Your task to perform on an android device: Empty the shopping cart on newegg. Search for "razer blade" on newegg, select the first entry, add it to the cart, then select checkout. Image 0: 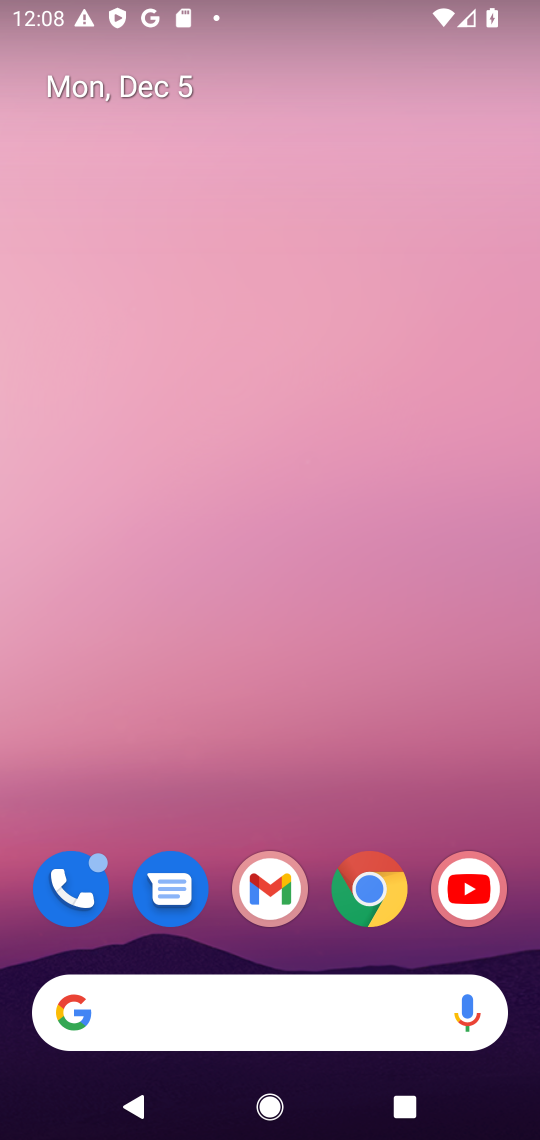
Step 0: click (381, 889)
Your task to perform on an android device: Empty the shopping cart on newegg. Search for "razer blade" on newegg, select the first entry, add it to the cart, then select checkout. Image 1: 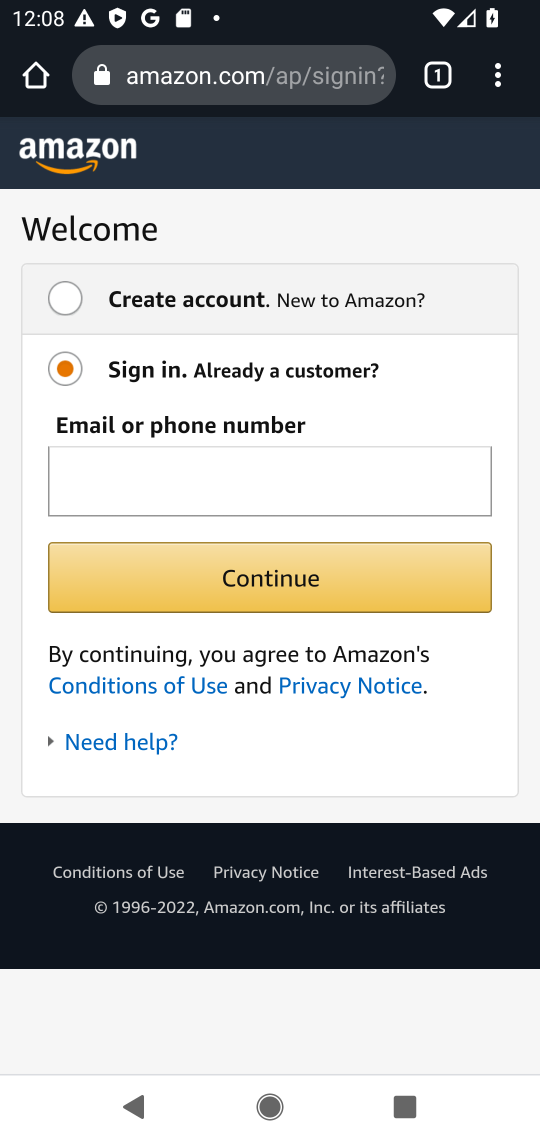
Step 1: press home button
Your task to perform on an android device: Empty the shopping cart on newegg. Search for "razer blade" on newegg, select the first entry, add it to the cart, then select checkout. Image 2: 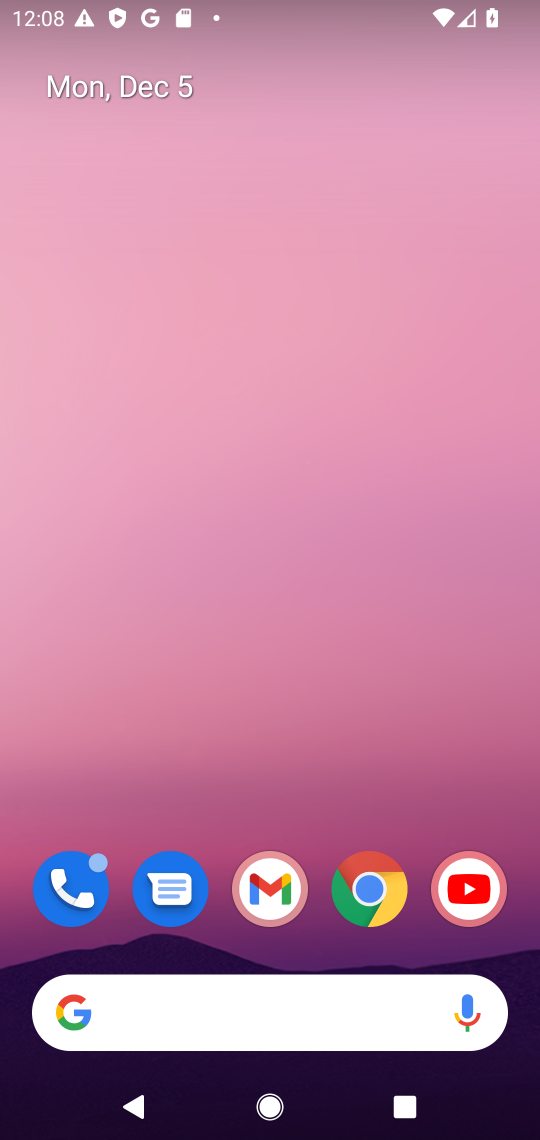
Step 2: click (371, 890)
Your task to perform on an android device: Empty the shopping cart on newegg. Search for "razer blade" on newegg, select the first entry, add it to the cart, then select checkout. Image 3: 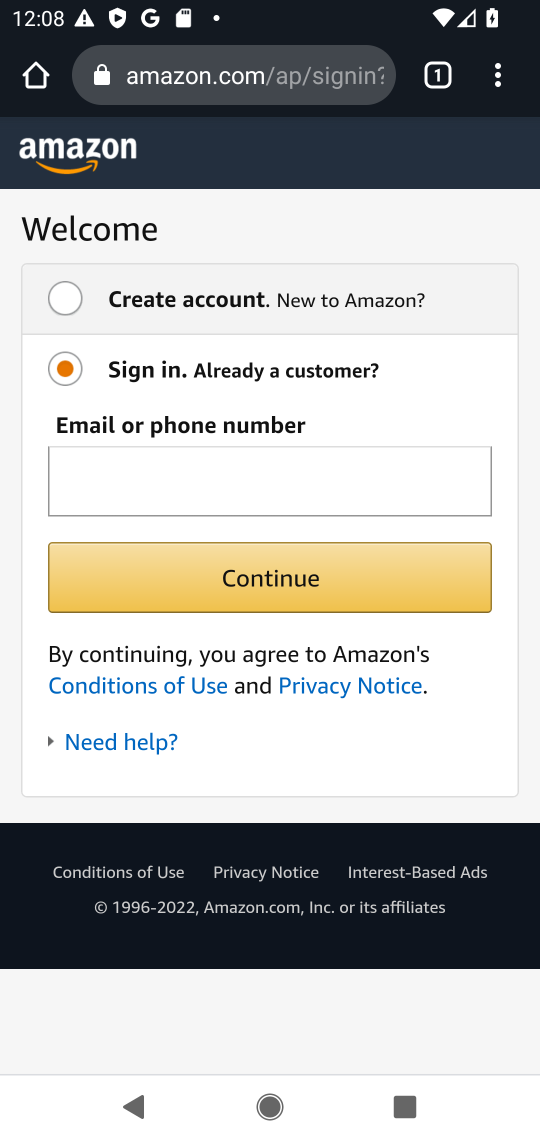
Step 3: click (251, 68)
Your task to perform on an android device: Empty the shopping cart on newegg. Search for "razer blade" on newegg, select the first entry, add it to the cart, then select checkout. Image 4: 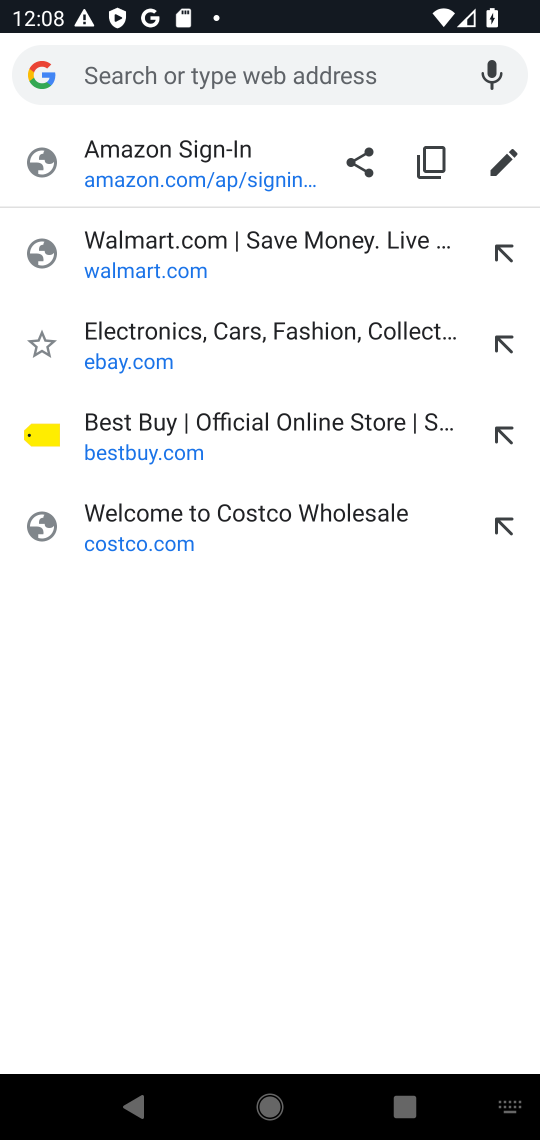
Step 4: type "newegg"
Your task to perform on an android device: Empty the shopping cart on newegg. Search for "razer blade" on newegg, select the first entry, add it to the cart, then select checkout. Image 5: 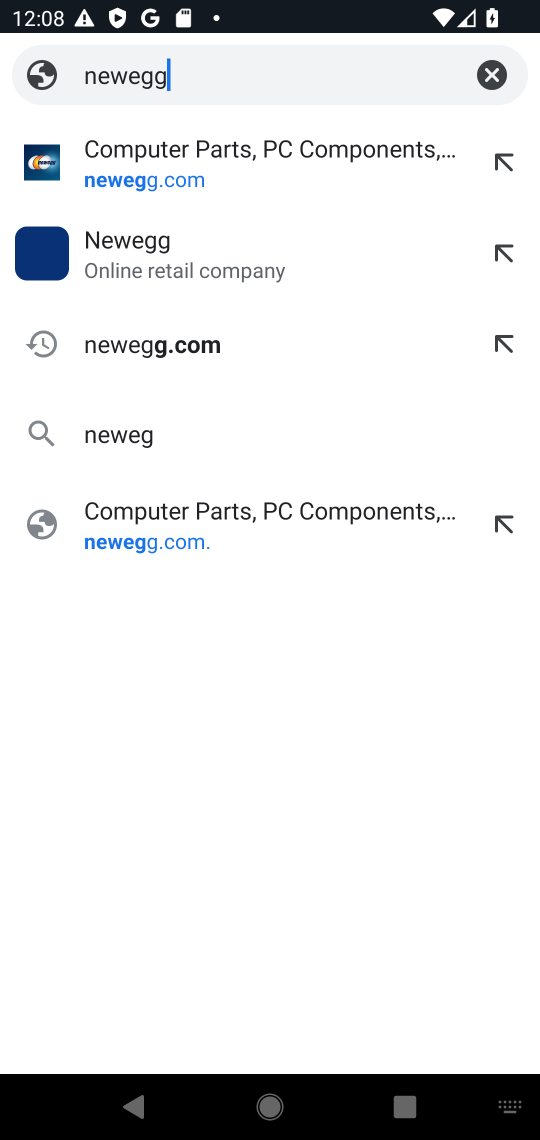
Step 5: press enter
Your task to perform on an android device: Empty the shopping cart on newegg. Search for "razer blade" on newegg, select the first entry, add it to the cart, then select checkout. Image 6: 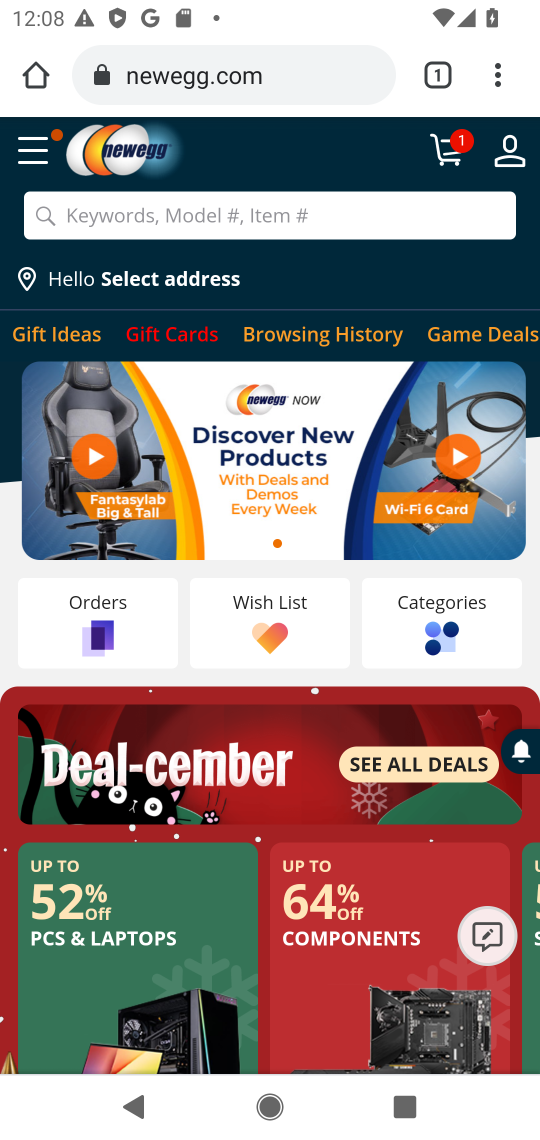
Step 6: click (247, 210)
Your task to perform on an android device: Empty the shopping cart on newegg. Search for "razer blade" on newegg, select the first entry, add it to the cart, then select checkout. Image 7: 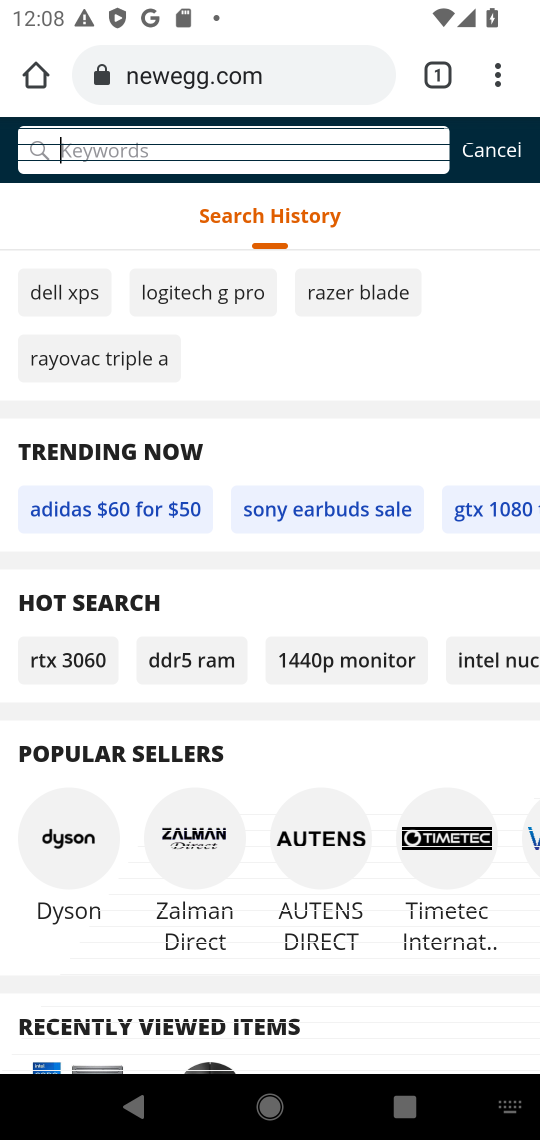
Step 7: click (486, 149)
Your task to perform on an android device: Empty the shopping cart on newegg. Search for "razer blade" on newegg, select the first entry, add it to the cart, then select checkout. Image 8: 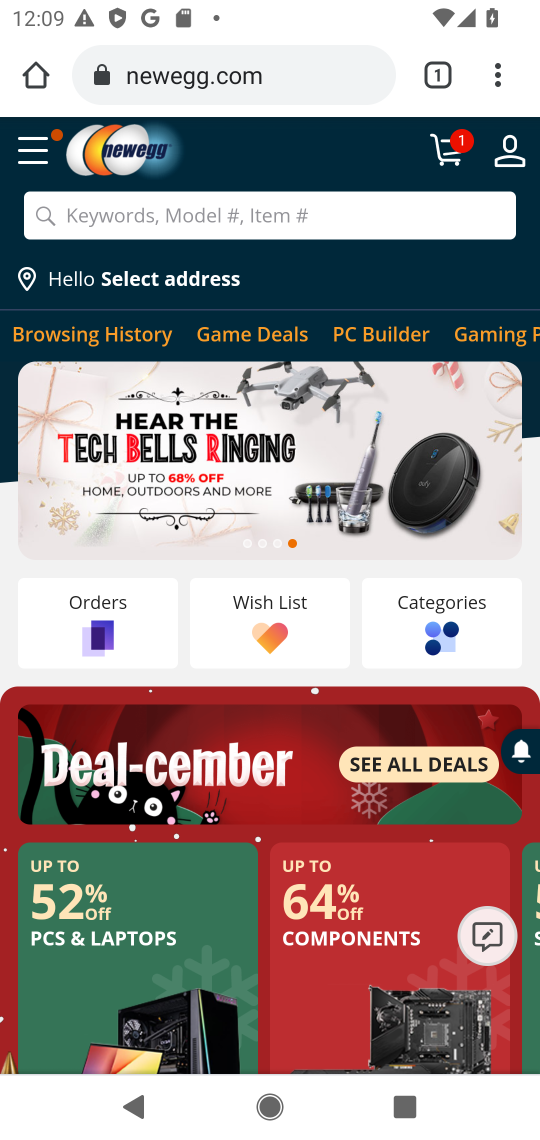
Step 8: click (450, 162)
Your task to perform on an android device: Empty the shopping cart on newegg. Search for "razer blade" on newegg, select the first entry, add it to the cart, then select checkout. Image 9: 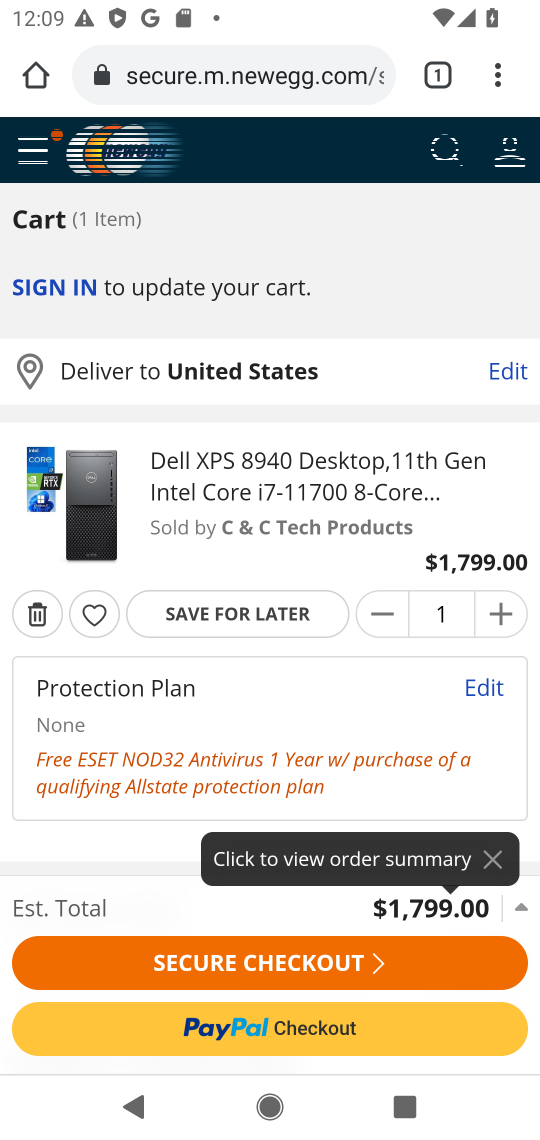
Step 9: click (26, 614)
Your task to perform on an android device: Empty the shopping cart on newegg. Search for "razer blade" on newegg, select the first entry, add it to the cart, then select checkout. Image 10: 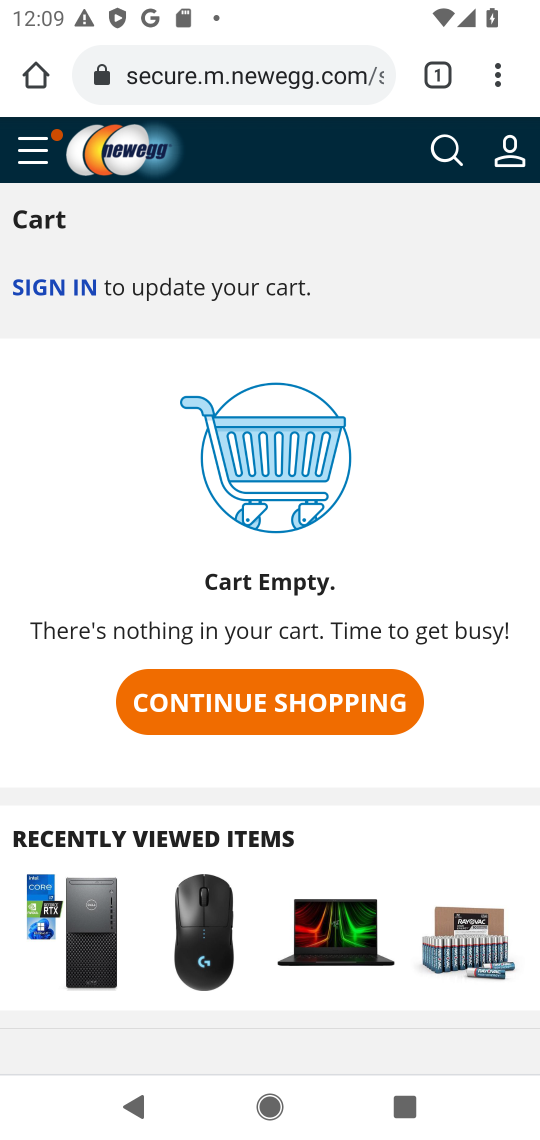
Step 10: click (441, 153)
Your task to perform on an android device: Empty the shopping cart on newegg. Search for "razer blade" on newegg, select the first entry, add it to the cart, then select checkout. Image 11: 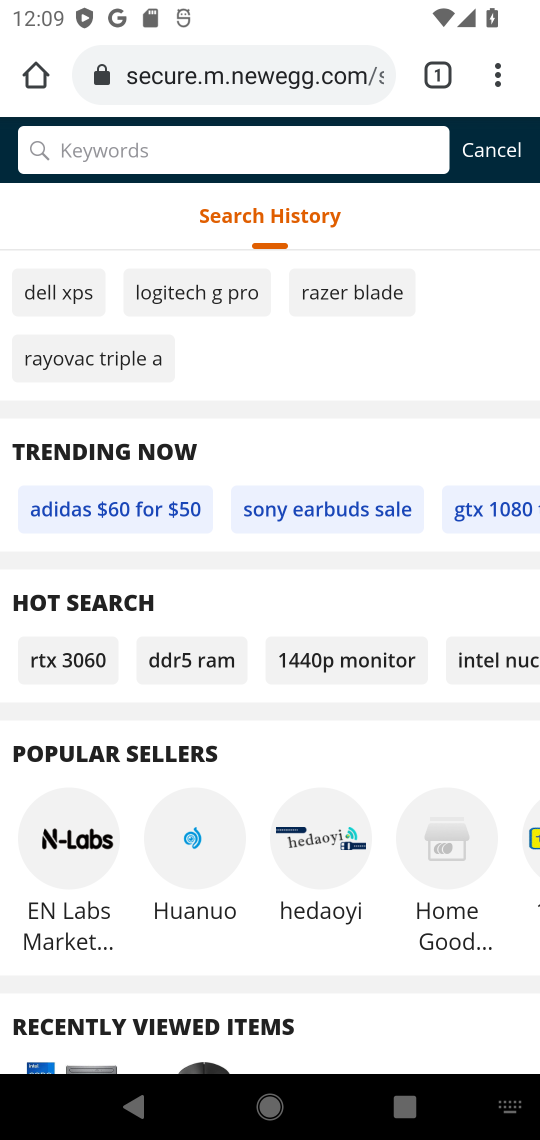
Step 11: type "razer blade"
Your task to perform on an android device: Empty the shopping cart on newegg. Search for "razer blade" on newegg, select the first entry, add it to the cart, then select checkout. Image 12: 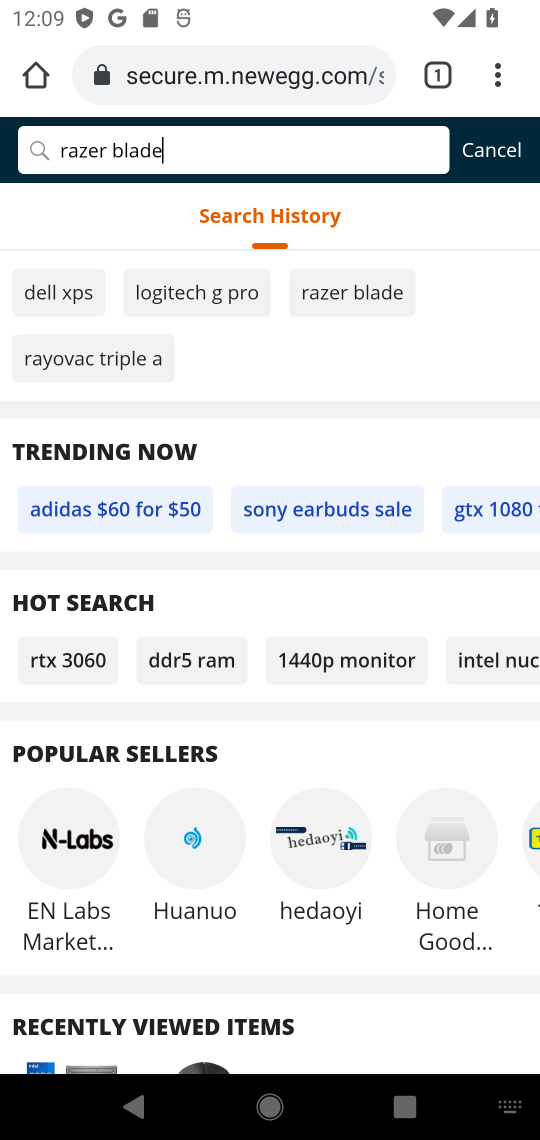
Step 12: press enter
Your task to perform on an android device: Empty the shopping cart on newegg. Search for "razer blade" on newegg, select the first entry, add it to the cart, then select checkout. Image 13: 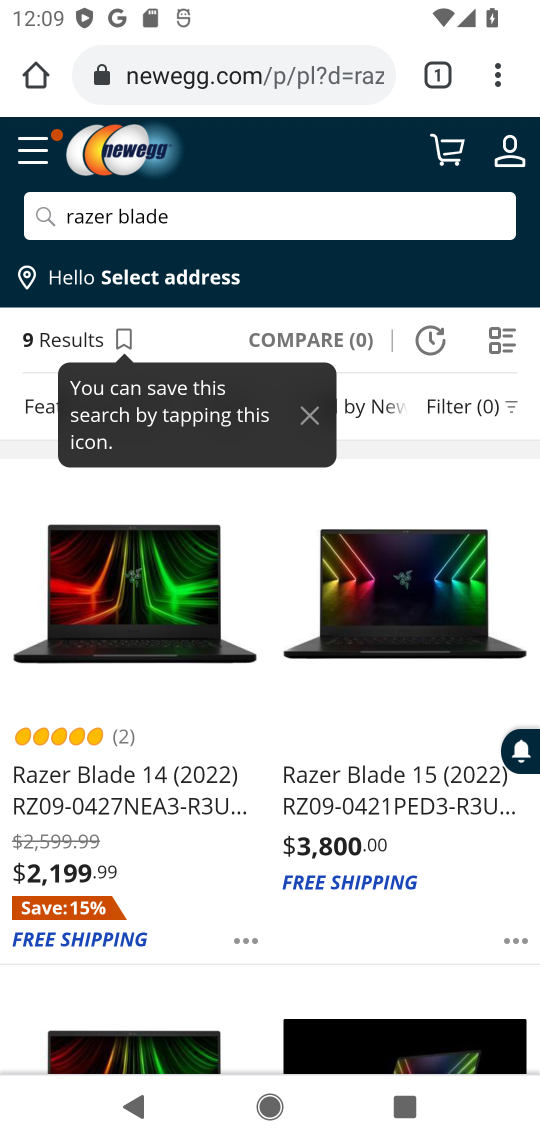
Step 13: drag from (221, 861) to (266, 412)
Your task to perform on an android device: Empty the shopping cart on newegg. Search for "razer blade" on newegg, select the first entry, add it to the cart, then select checkout. Image 14: 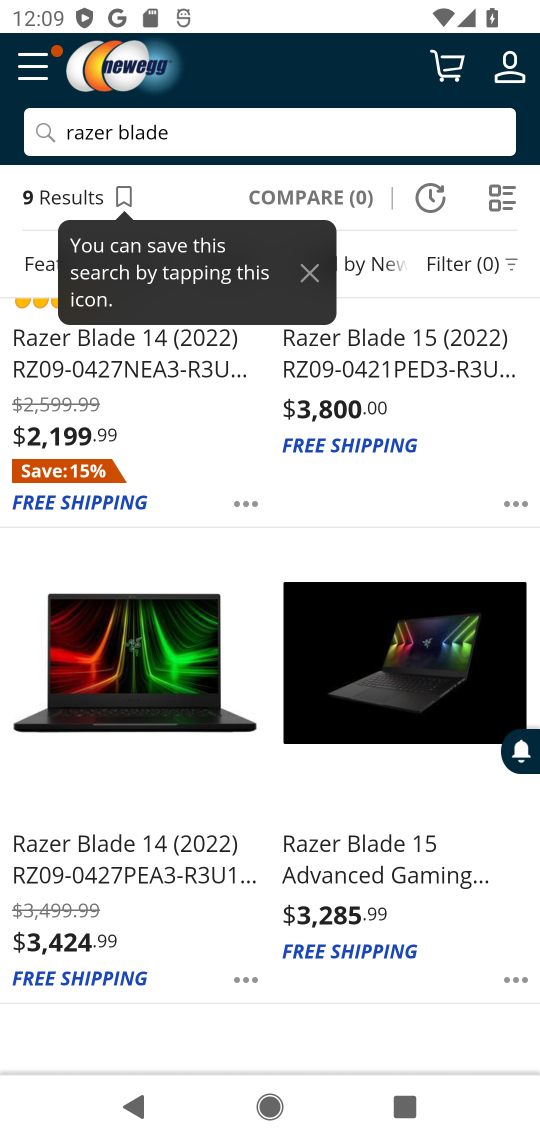
Step 14: drag from (190, 938) to (168, 427)
Your task to perform on an android device: Empty the shopping cart on newegg. Search for "razer blade" on newegg, select the first entry, add it to the cart, then select checkout. Image 15: 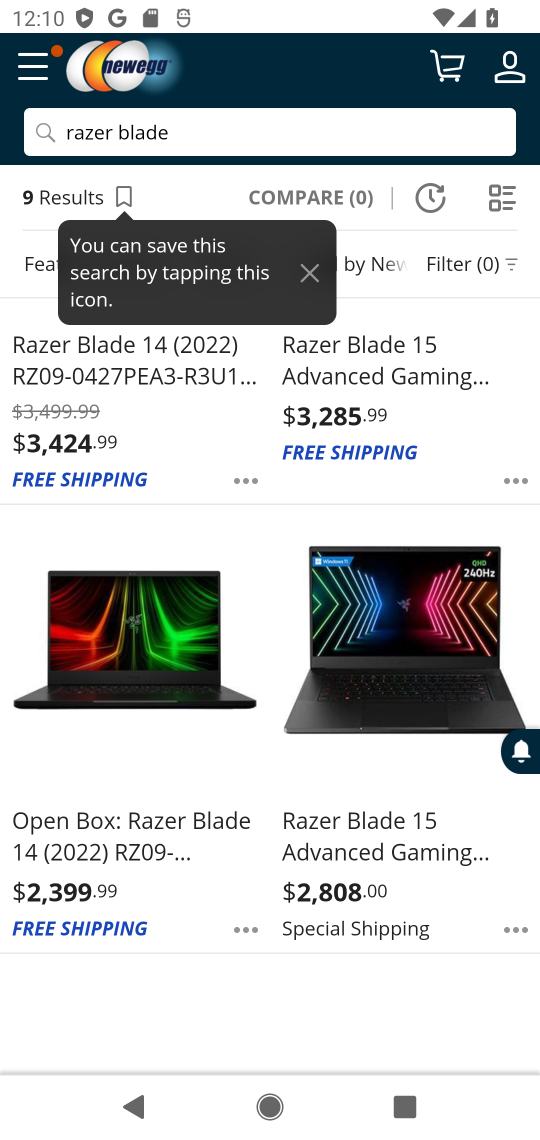
Step 15: drag from (249, 658) to (255, 147)
Your task to perform on an android device: Empty the shopping cart on newegg. Search for "razer blade" on newegg, select the first entry, add it to the cart, then select checkout. Image 16: 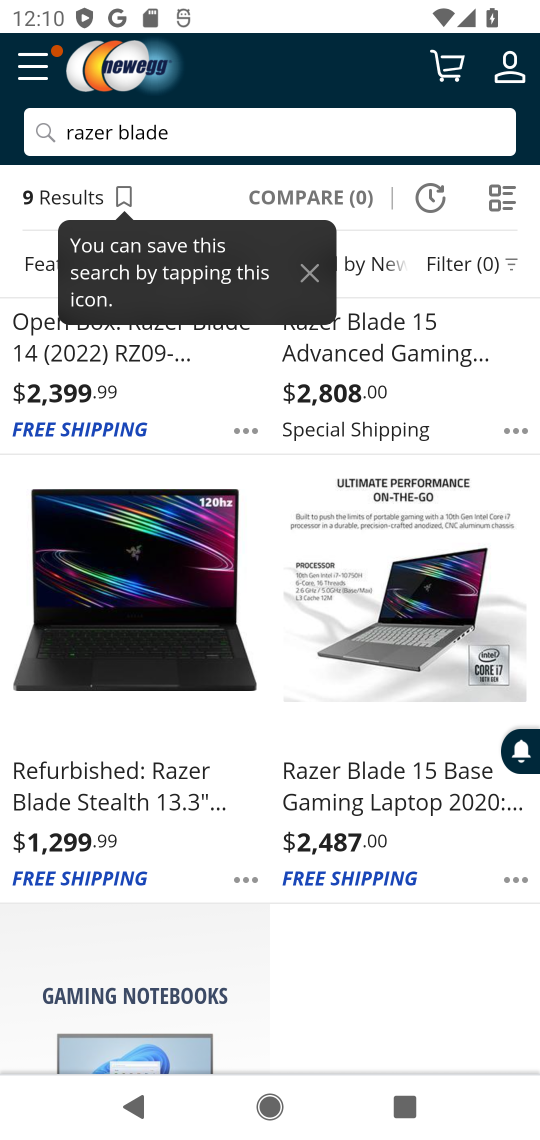
Step 16: click (204, 625)
Your task to perform on an android device: Empty the shopping cart on newegg. Search for "razer blade" on newegg, select the first entry, add it to the cart, then select checkout. Image 17: 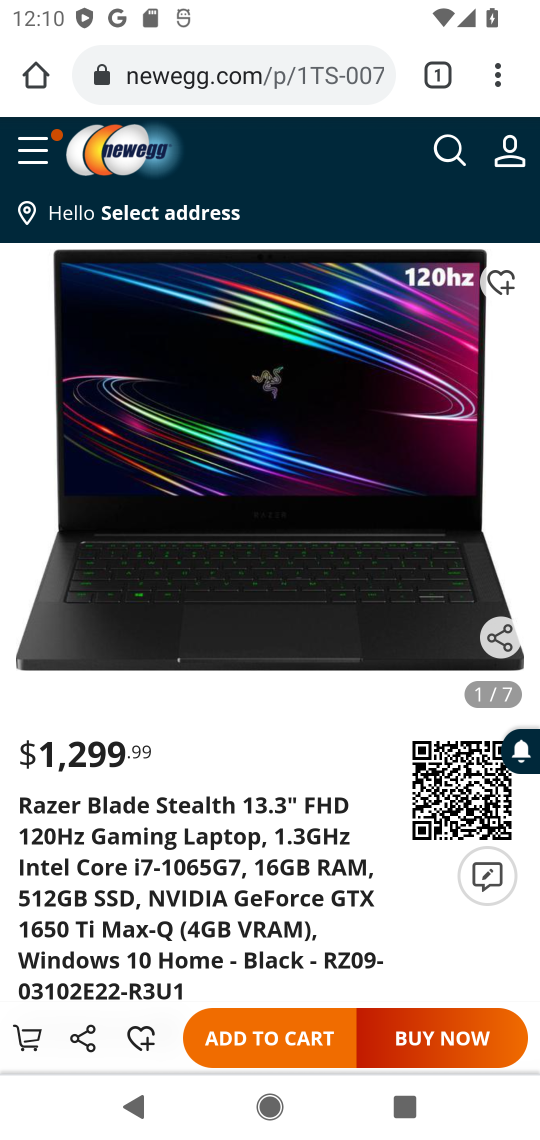
Step 17: click (266, 1033)
Your task to perform on an android device: Empty the shopping cart on newegg. Search for "razer blade" on newegg, select the first entry, add it to the cart, then select checkout. Image 18: 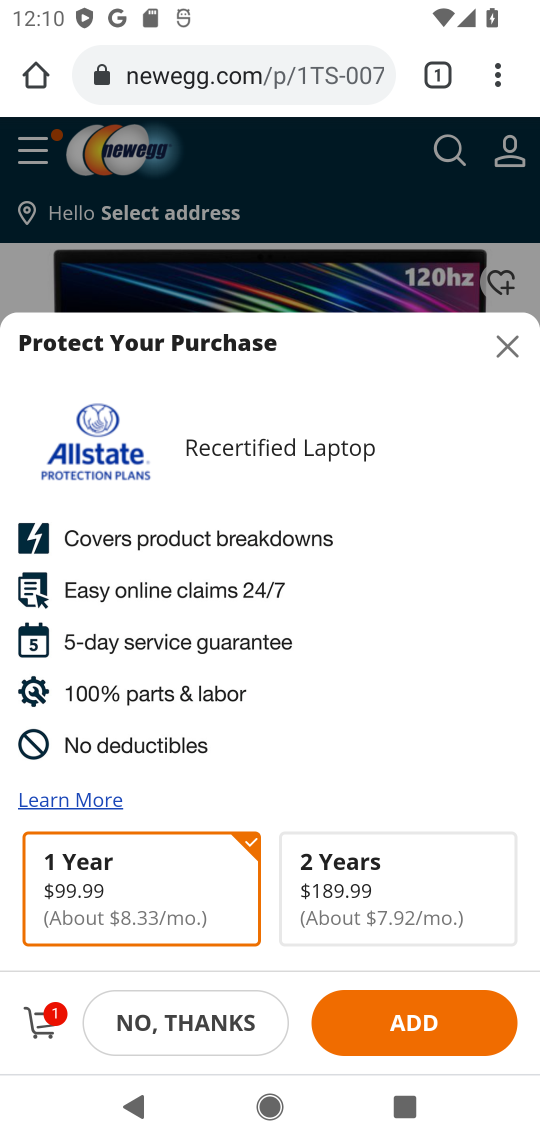
Step 18: click (53, 1030)
Your task to perform on an android device: Empty the shopping cart on newegg. Search for "razer blade" on newegg, select the first entry, add it to the cart, then select checkout. Image 19: 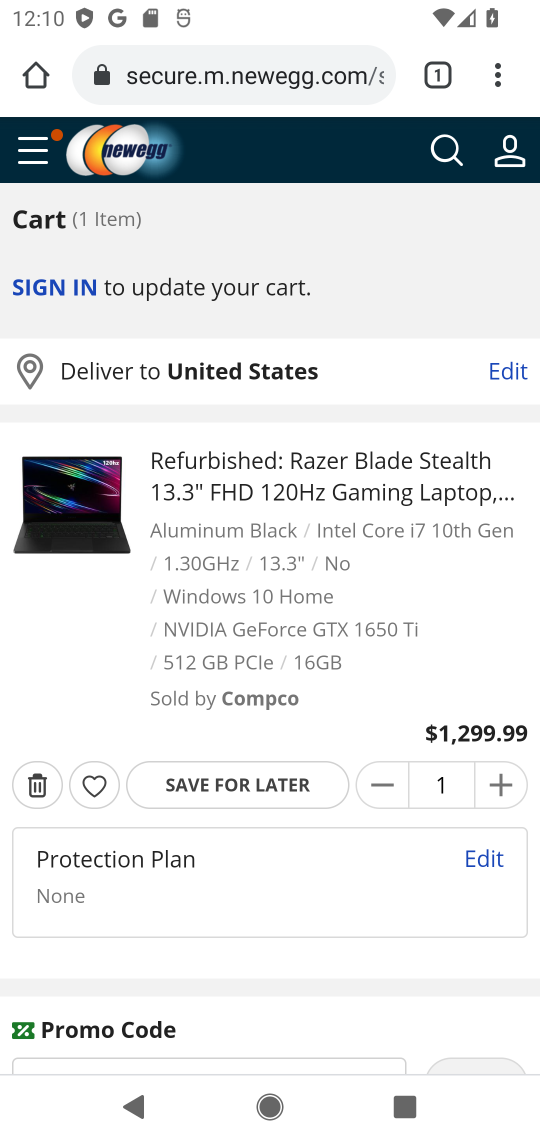
Step 19: click (296, 957)
Your task to perform on an android device: Empty the shopping cart on newegg. Search for "razer blade" on newegg, select the first entry, add it to the cart, then select checkout. Image 20: 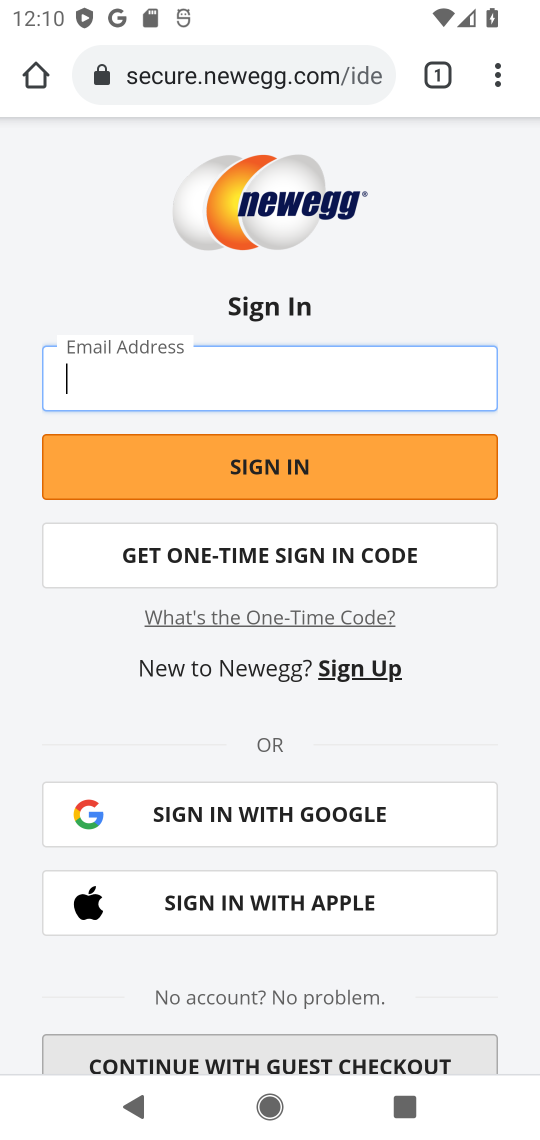
Step 20: task complete